Your task to perform on an android device: make emails show in primary in the gmail app Image 0: 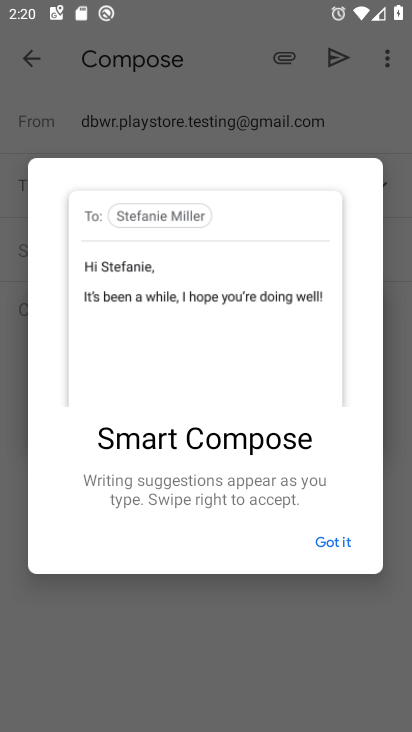
Step 0: press home button
Your task to perform on an android device: make emails show in primary in the gmail app Image 1: 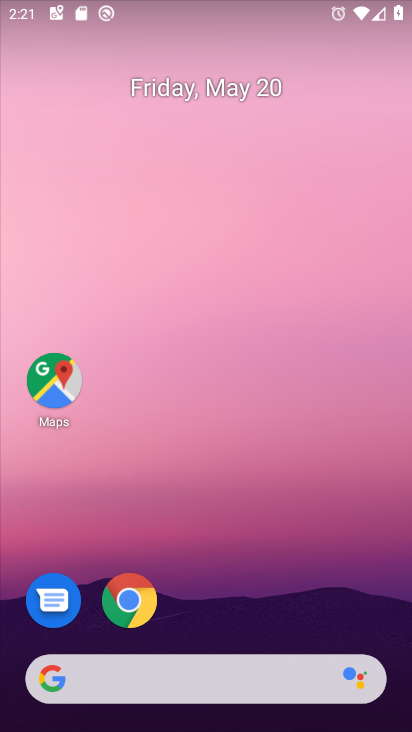
Step 1: drag from (225, 629) to (263, 4)
Your task to perform on an android device: make emails show in primary in the gmail app Image 2: 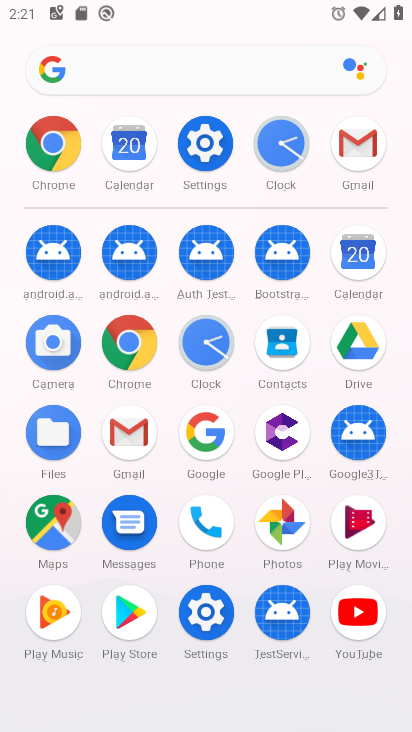
Step 2: click (140, 444)
Your task to perform on an android device: make emails show in primary in the gmail app Image 3: 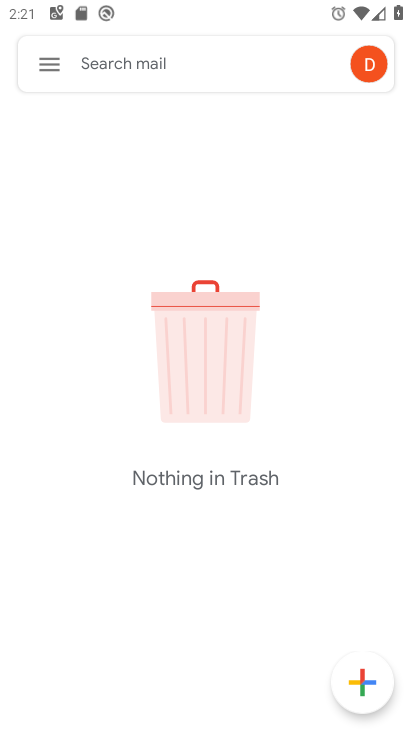
Step 3: click (42, 63)
Your task to perform on an android device: make emails show in primary in the gmail app Image 4: 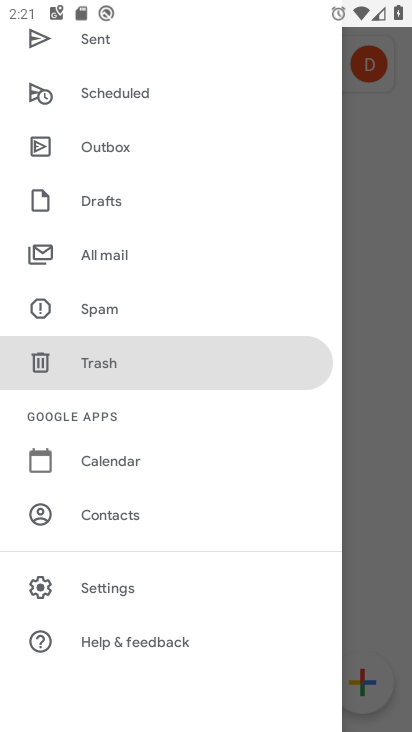
Step 4: click (48, 68)
Your task to perform on an android device: make emails show in primary in the gmail app Image 5: 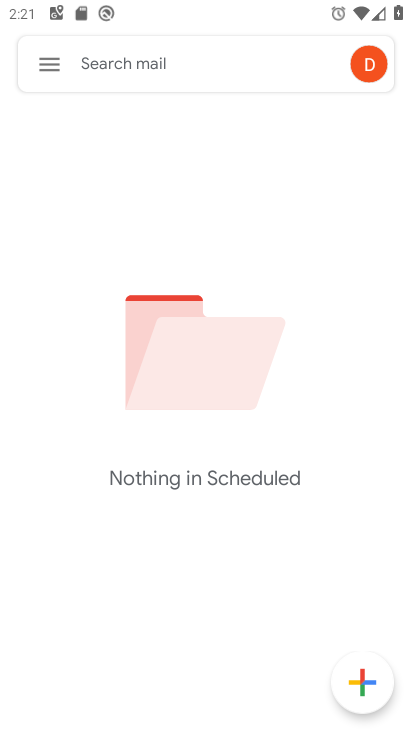
Step 5: drag from (144, 512) to (238, 128)
Your task to perform on an android device: make emails show in primary in the gmail app Image 6: 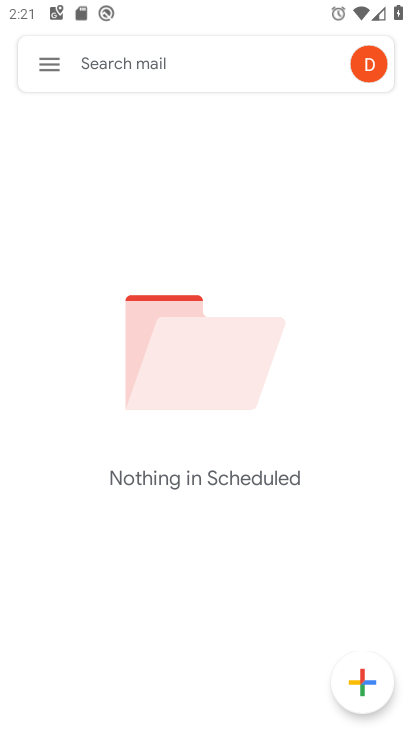
Step 6: click (56, 65)
Your task to perform on an android device: make emails show in primary in the gmail app Image 7: 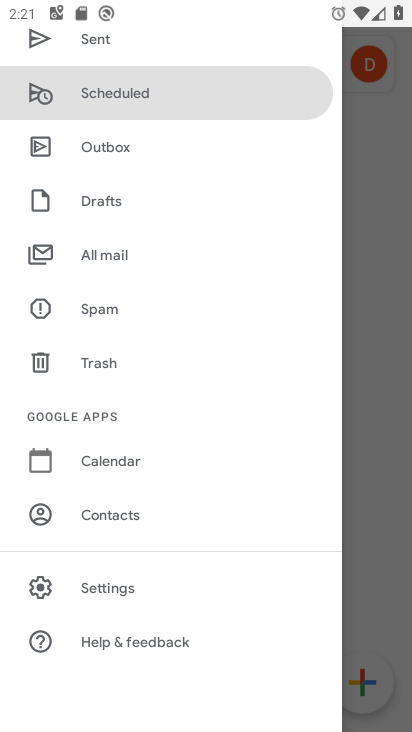
Step 7: click (120, 590)
Your task to perform on an android device: make emails show in primary in the gmail app Image 8: 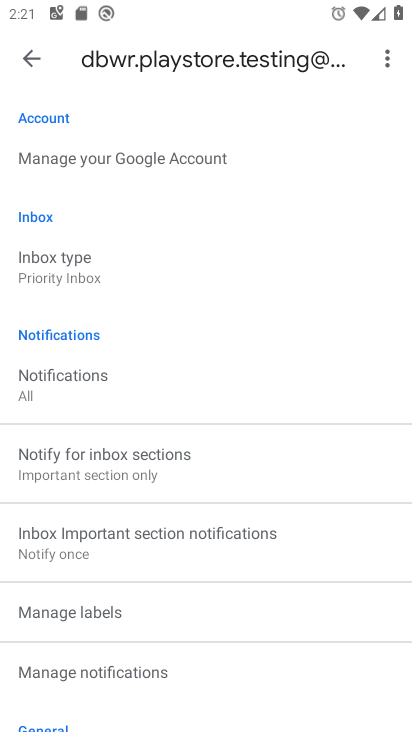
Step 8: click (113, 277)
Your task to perform on an android device: make emails show in primary in the gmail app Image 9: 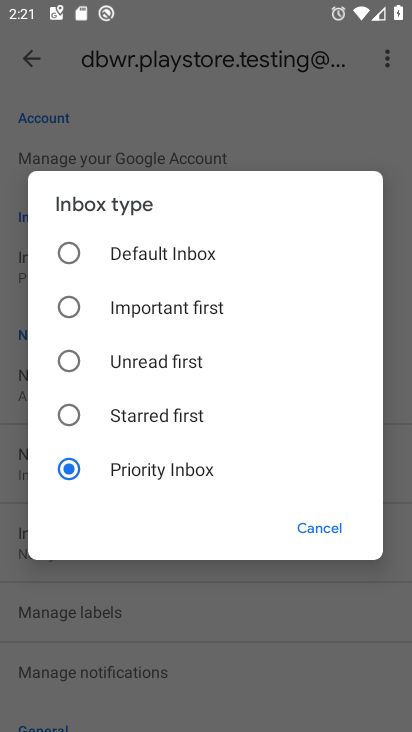
Step 9: click (157, 259)
Your task to perform on an android device: make emails show in primary in the gmail app Image 10: 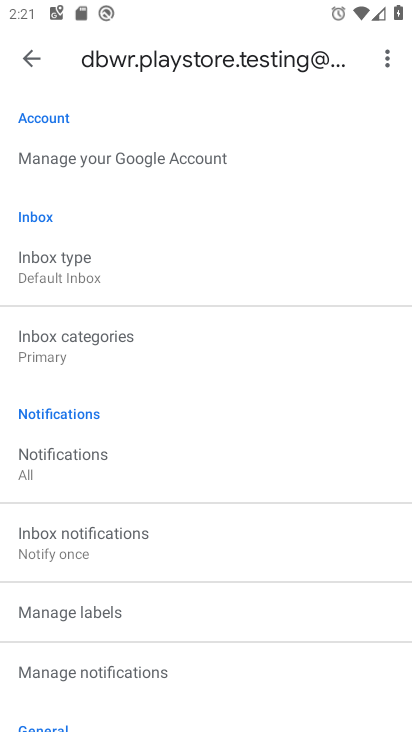
Step 10: task complete